Your task to perform on an android device: check out phone information Image 0: 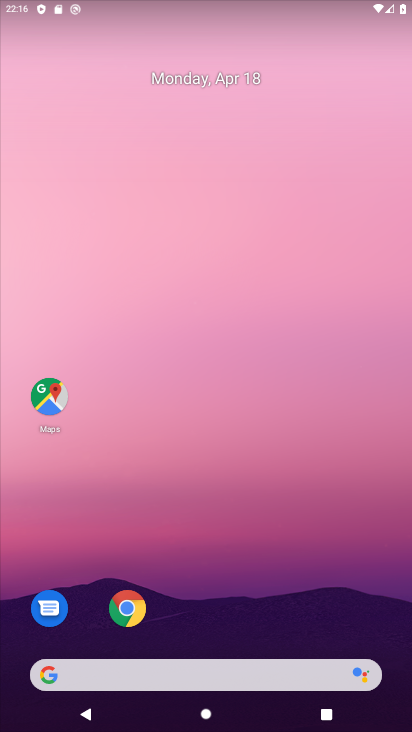
Step 0: drag from (272, 523) to (285, 201)
Your task to perform on an android device: check out phone information Image 1: 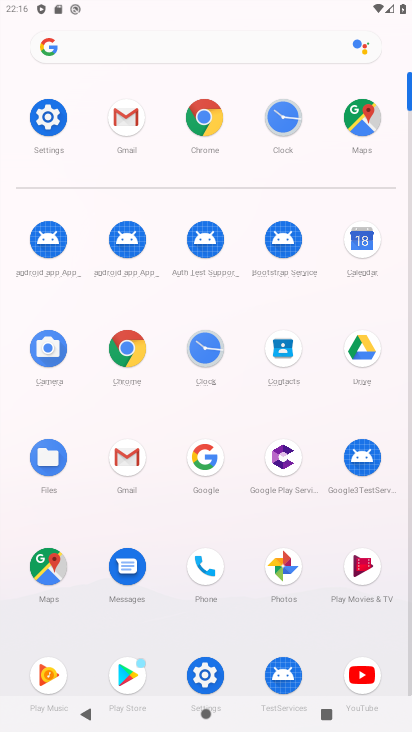
Step 1: click (48, 113)
Your task to perform on an android device: check out phone information Image 2: 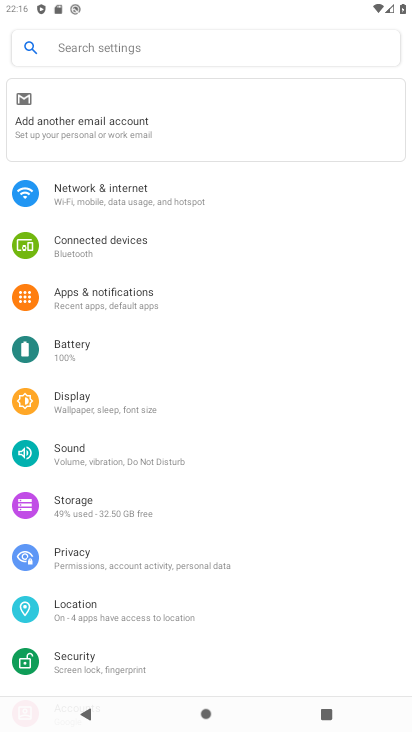
Step 2: drag from (223, 574) to (312, 20)
Your task to perform on an android device: check out phone information Image 3: 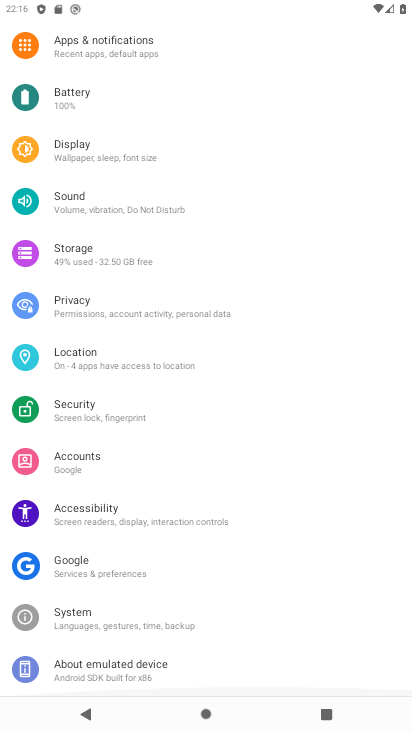
Step 3: click (177, 673)
Your task to perform on an android device: check out phone information Image 4: 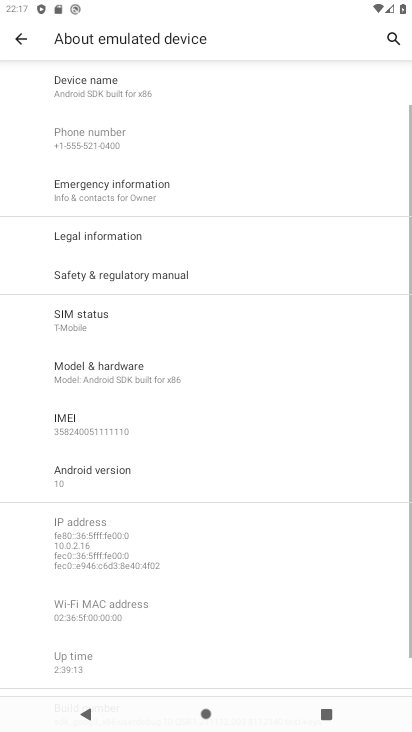
Step 4: task complete